Your task to perform on an android device: all mails in gmail Image 0: 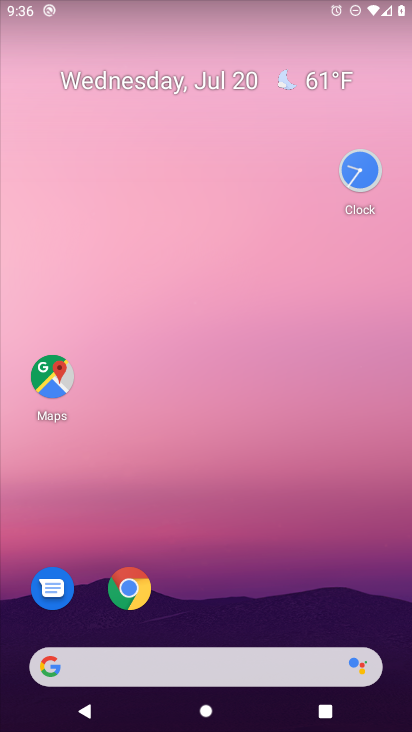
Step 0: click (52, 390)
Your task to perform on an android device: all mails in gmail Image 1: 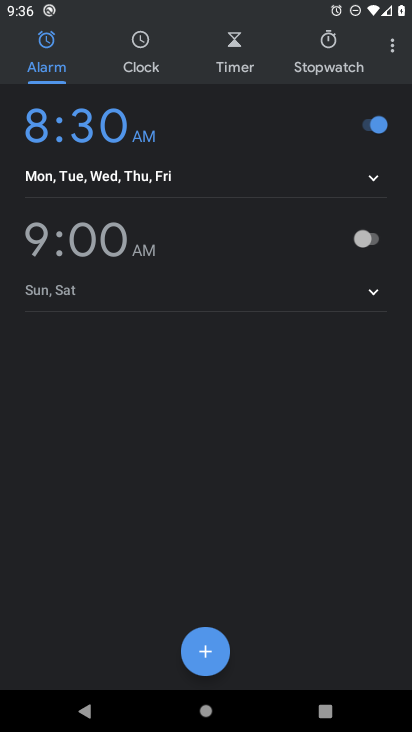
Step 1: press home button
Your task to perform on an android device: all mails in gmail Image 2: 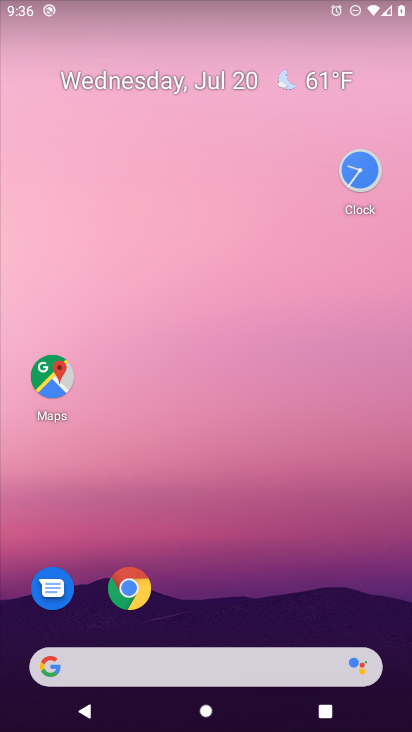
Step 2: drag from (41, 695) to (217, 27)
Your task to perform on an android device: all mails in gmail Image 3: 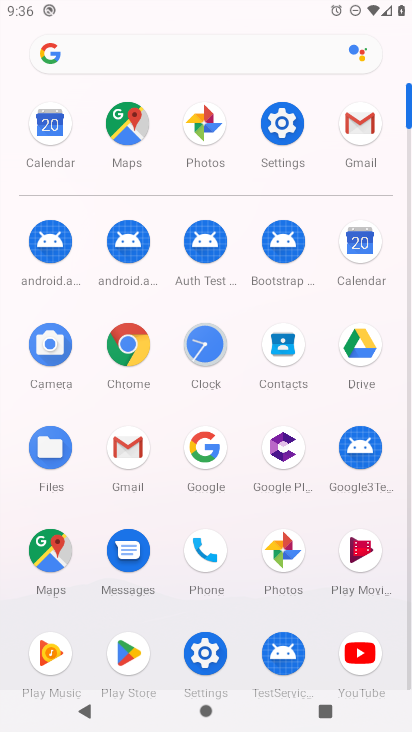
Step 3: click (108, 442)
Your task to perform on an android device: all mails in gmail Image 4: 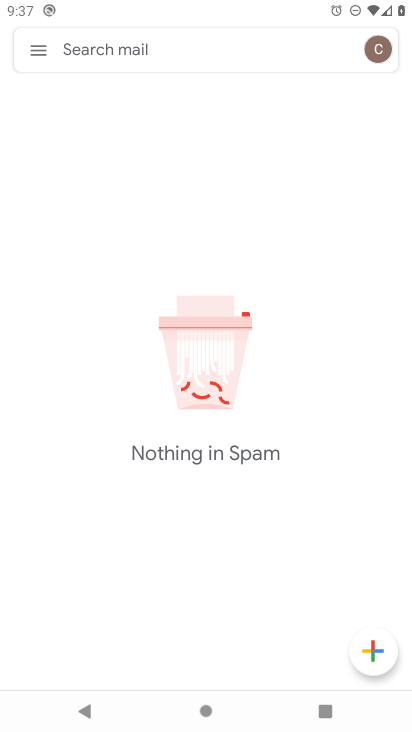
Step 4: click (48, 51)
Your task to perform on an android device: all mails in gmail Image 5: 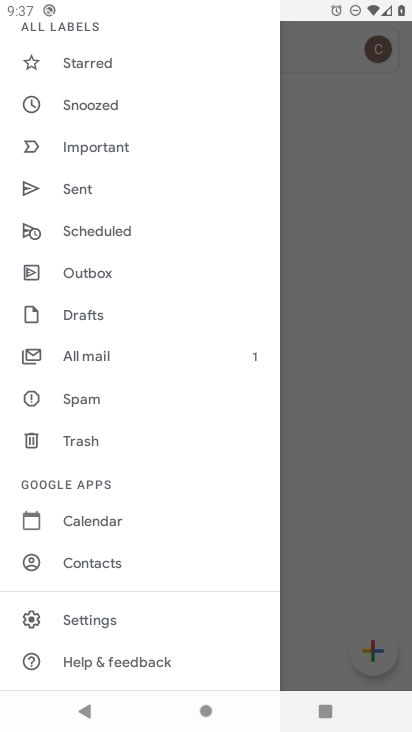
Step 5: click (58, 350)
Your task to perform on an android device: all mails in gmail Image 6: 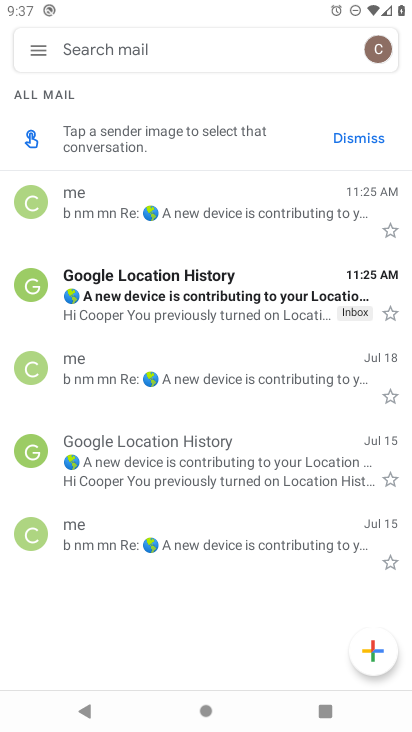
Step 6: task complete